Your task to perform on an android device: delete browsing data in the chrome app Image 0: 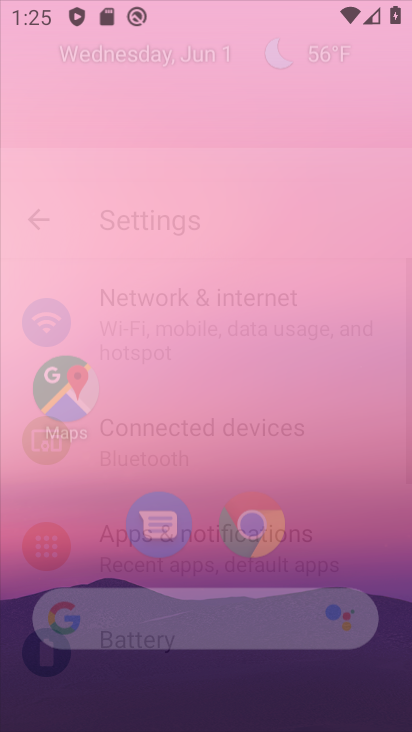
Step 0: click (235, 131)
Your task to perform on an android device: delete browsing data in the chrome app Image 1: 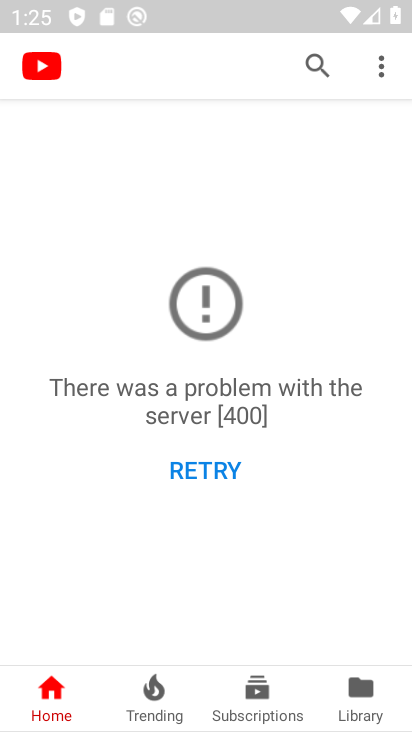
Step 1: press home button
Your task to perform on an android device: delete browsing data in the chrome app Image 2: 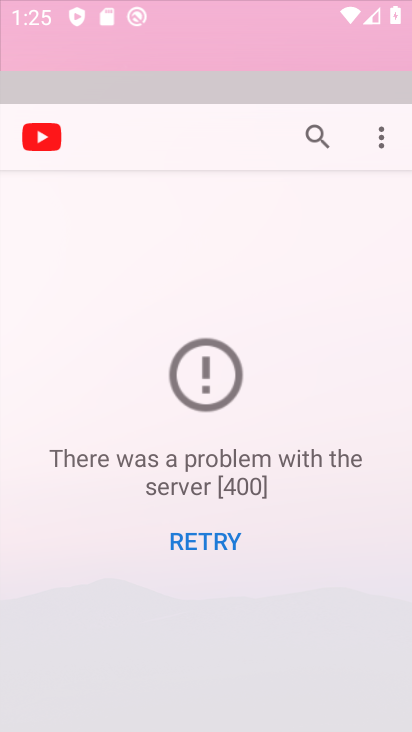
Step 2: press home button
Your task to perform on an android device: delete browsing data in the chrome app Image 3: 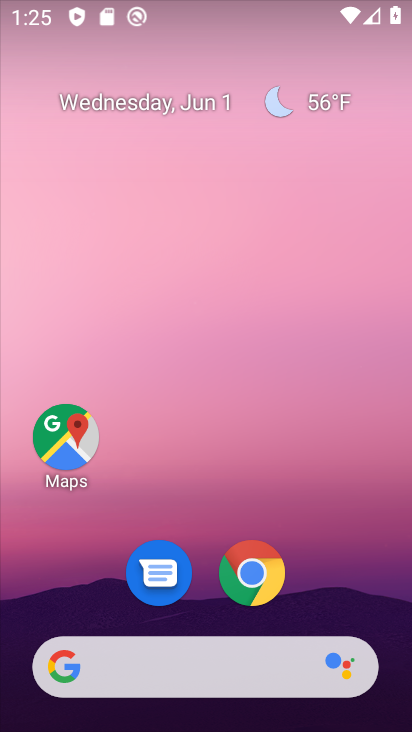
Step 3: click (178, 218)
Your task to perform on an android device: delete browsing data in the chrome app Image 4: 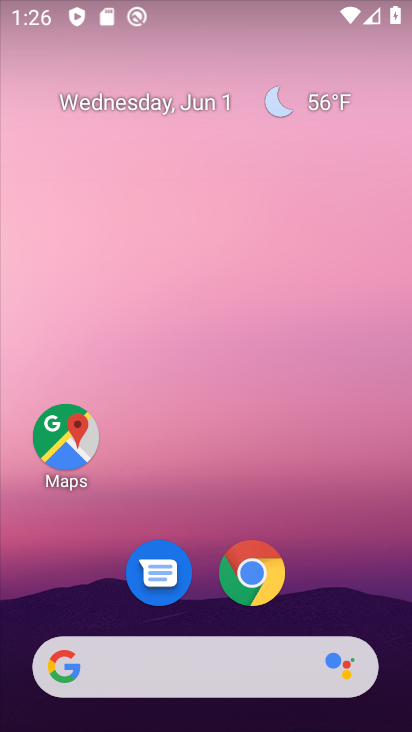
Step 4: drag from (188, 611) to (222, 326)
Your task to perform on an android device: delete browsing data in the chrome app Image 5: 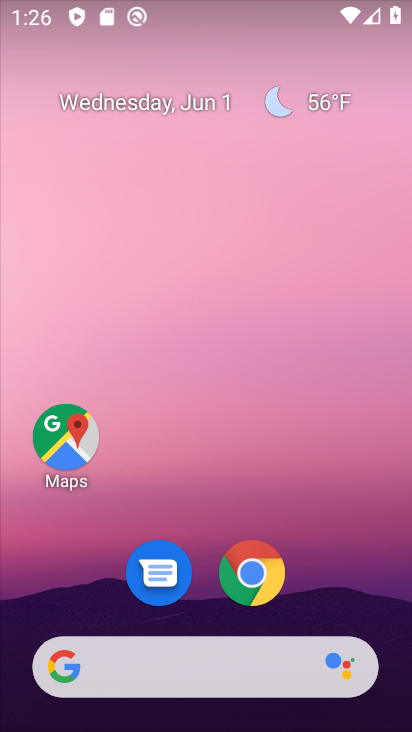
Step 5: drag from (197, 611) to (220, 41)
Your task to perform on an android device: delete browsing data in the chrome app Image 6: 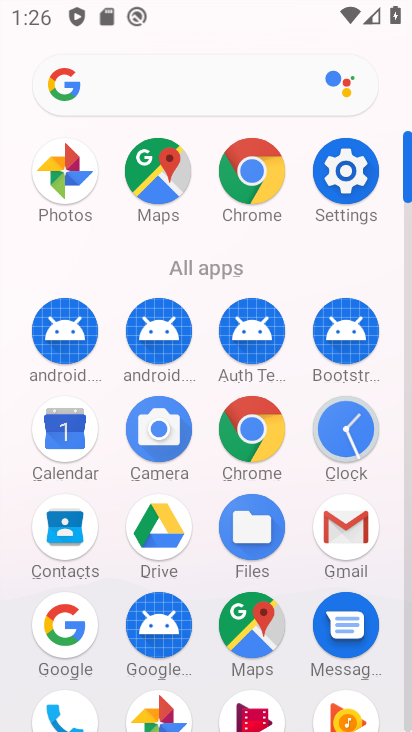
Step 6: click (240, 429)
Your task to perform on an android device: delete browsing data in the chrome app Image 7: 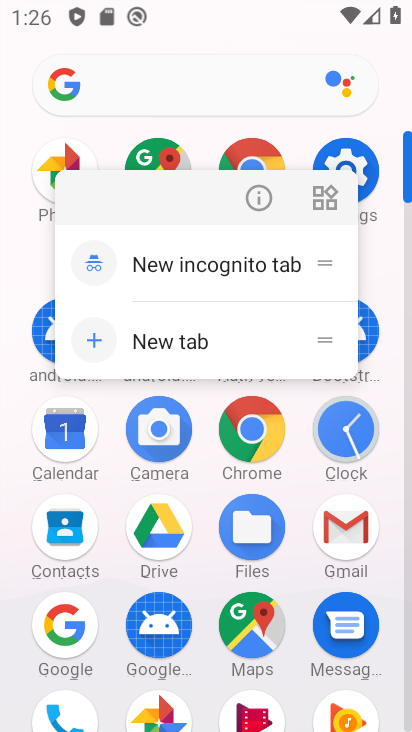
Step 7: click (246, 193)
Your task to perform on an android device: delete browsing data in the chrome app Image 8: 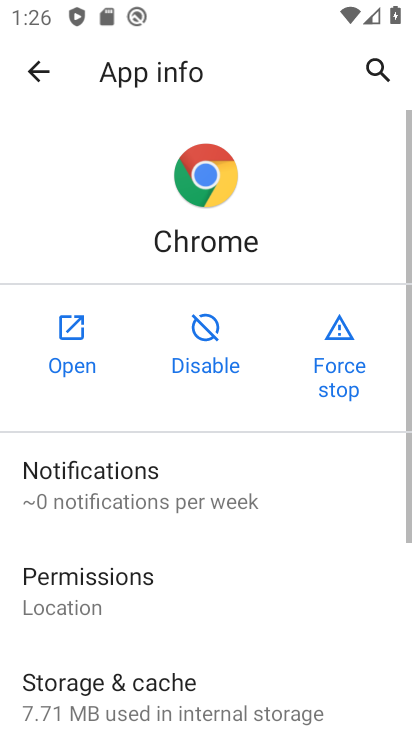
Step 8: click (68, 339)
Your task to perform on an android device: delete browsing data in the chrome app Image 9: 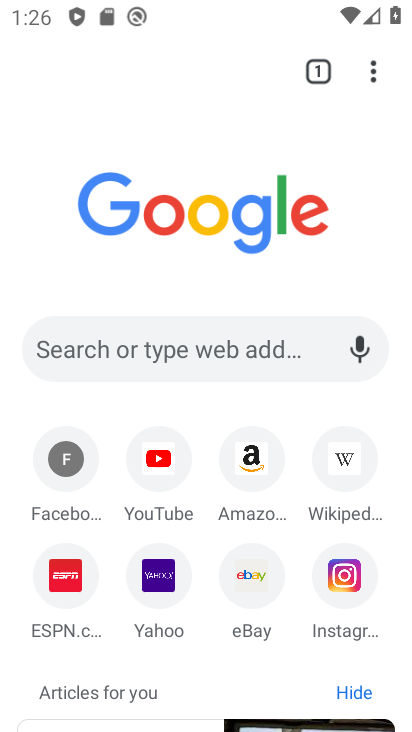
Step 9: task complete